Your task to perform on an android device: search for starred emails in the gmail app Image 0: 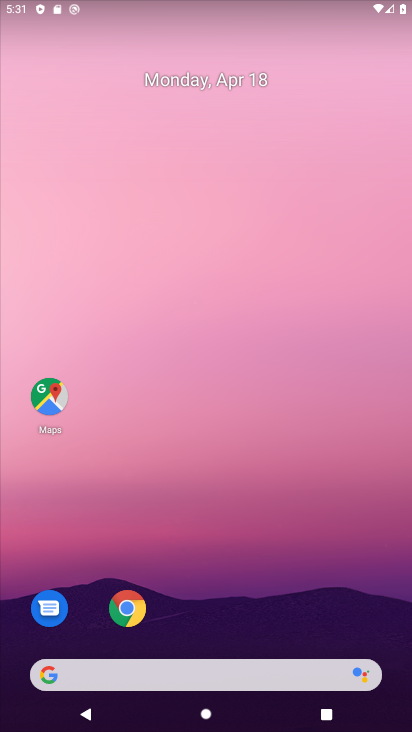
Step 0: drag from (205, 621) to (314, 121)
Your task to perform on an android device: search for starred emails in the gmail app Image 1: 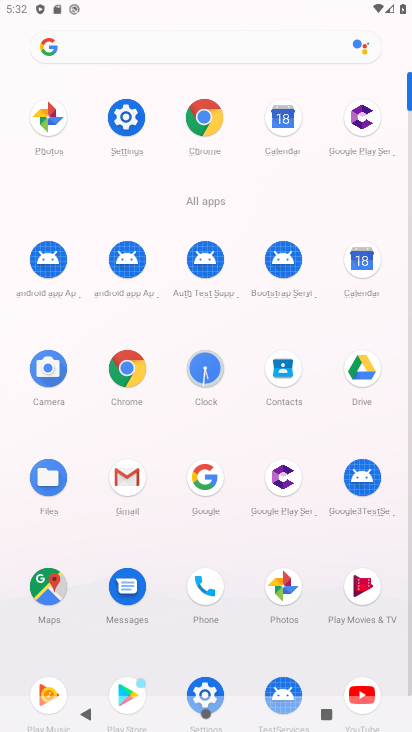
Step 1: click (122, 480)
Your task to perform on an android device: search for starred emails in the gmail app Image 2: 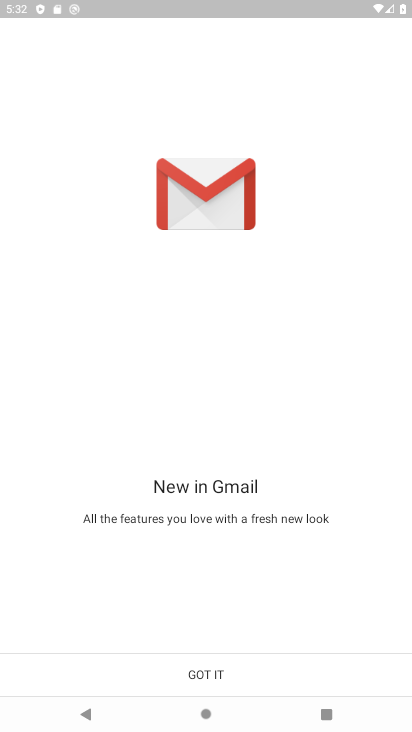
Step 2: click (224, 676)
Your task to perform on an android device: search for starred emails in the gmail app Image 3: 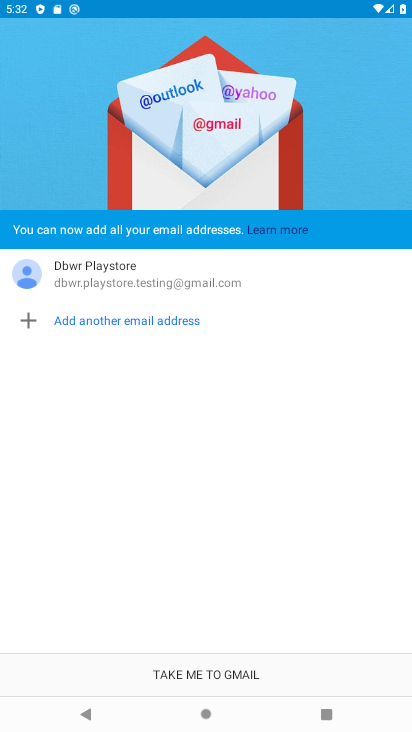
Step 3: click (217, 676)
Your task to perform on an android device: search for starred emails in the gmail app Image 4: 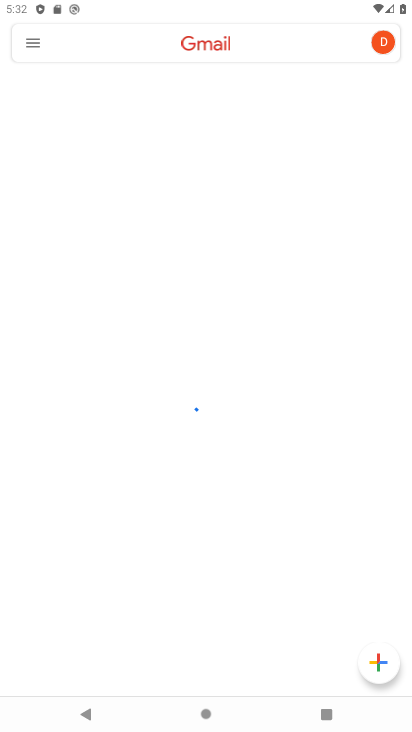
Step 4: click (28, 40)
Your task to perform on an android device: search for starred emails in the gmail app Image 5: 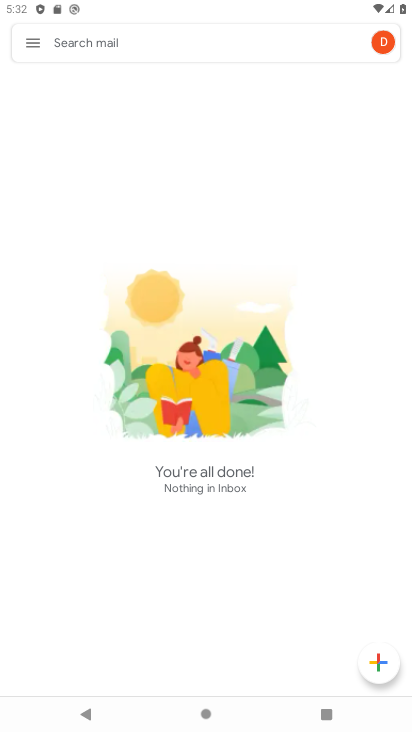
Step 5: click (35, 39)
Your task to perform on an android device: search for starred emails in the gmail app Image 6: 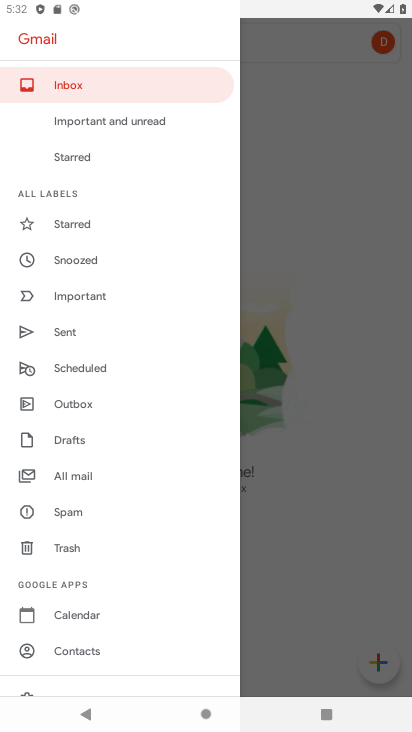
Step 6: click (85, 223)
Your task to perform on an android device: search for starred emails in the gmail app Image 7: 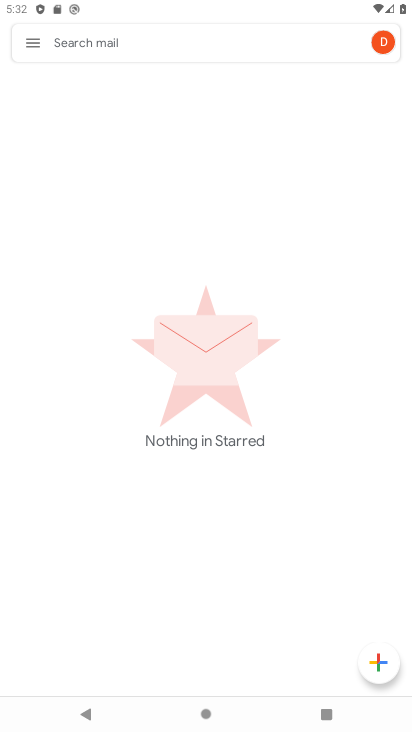
Step 7: task complete